Your task to perform on an android device: Search for sushi restaurants on Maps Image 0: 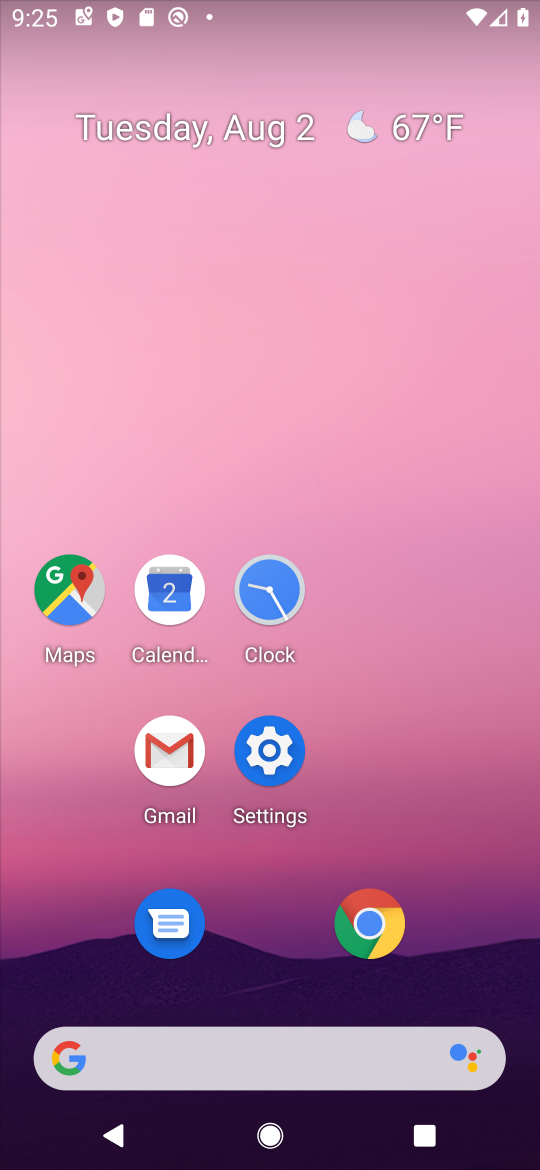
Step 0: click (78, 595)
Your task to perform on an android device: Search for sushi restaurants on Maps Image 1: 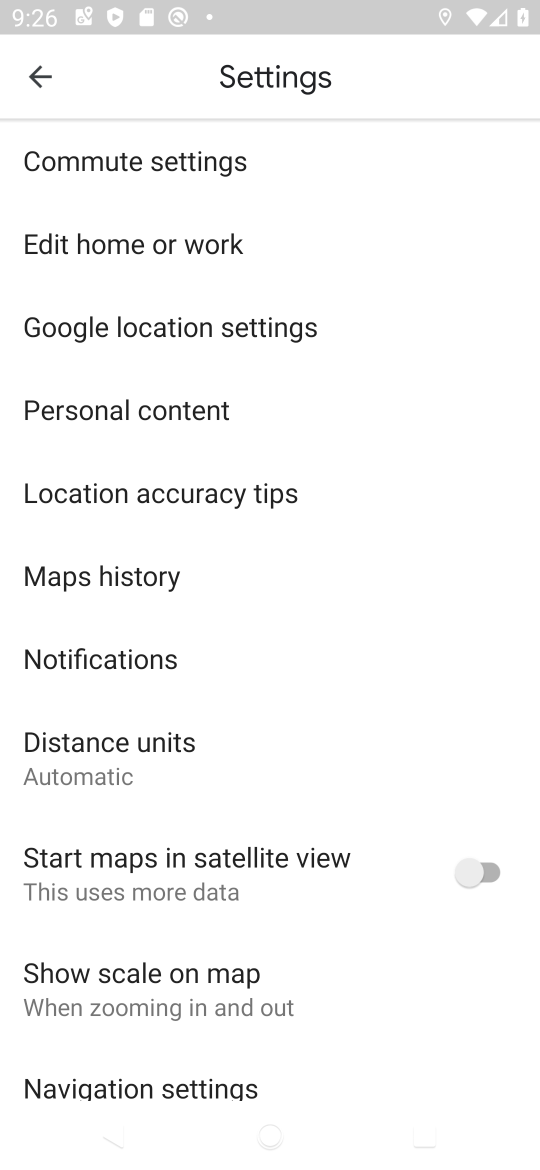
Step 1: click (44, 80)
Your task to perform on an android device: Search for sushi restaurants on Maps Image 2: 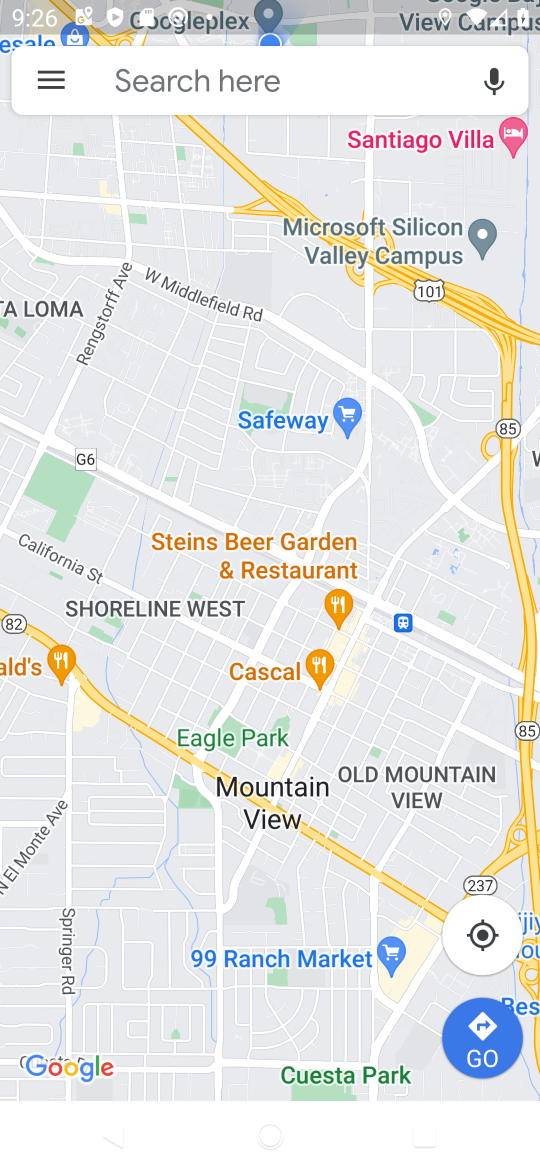
Step 2: click (224, 94)
Your task to perform on an android device: Search for sushi restaurants on Maps Image 3: 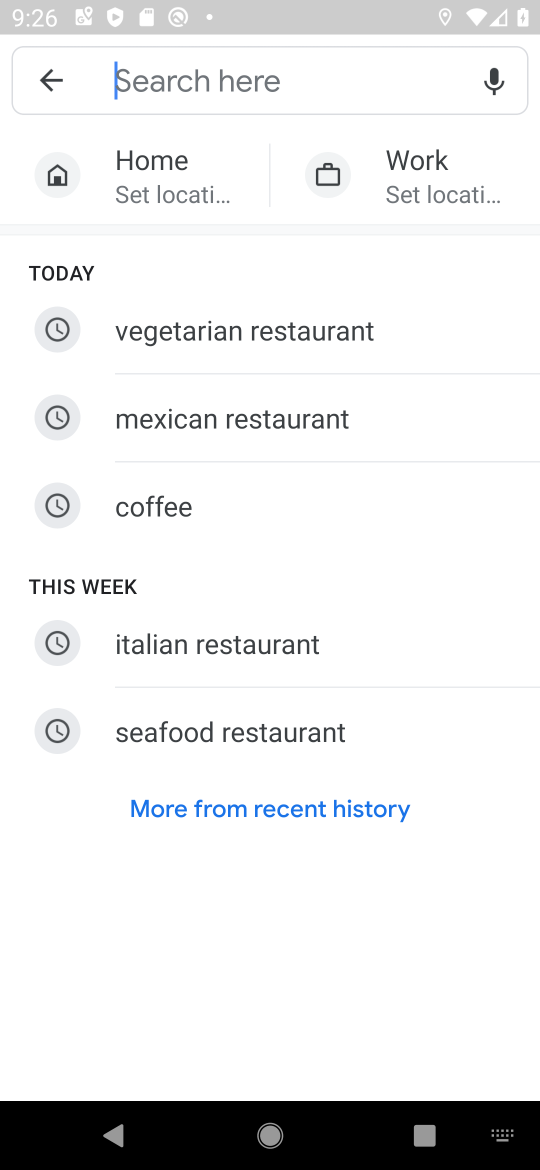
Step 3: type "sushi restaurants"
Your task to perform on an android device: Search for sushi restaurants on Maps Image 4: 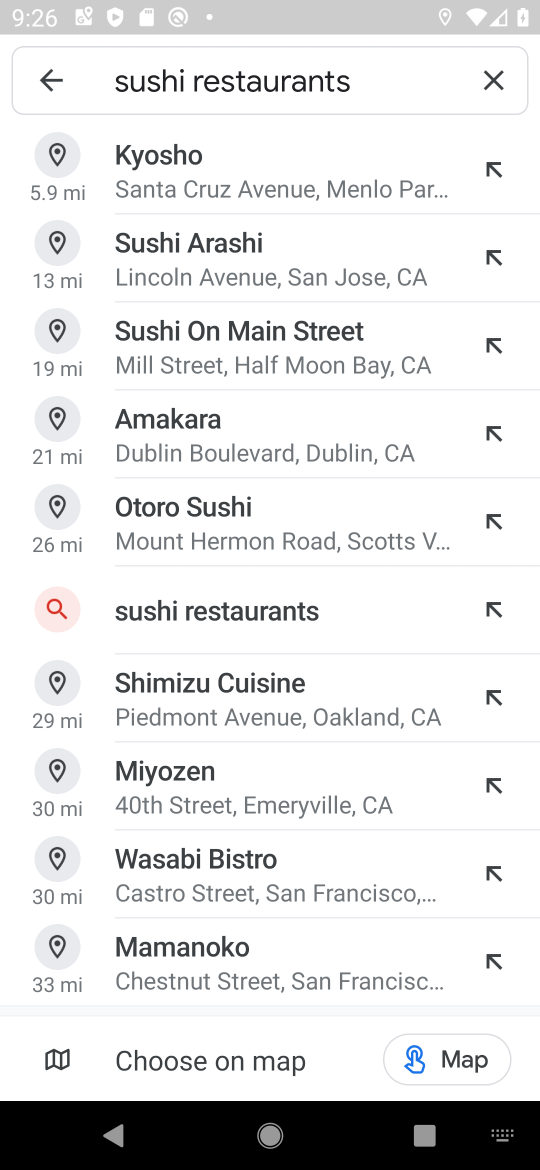
Step 4: click (162, 618)
Your task to perform on an android device: Search for sushi restaurants on Maps Image 5: 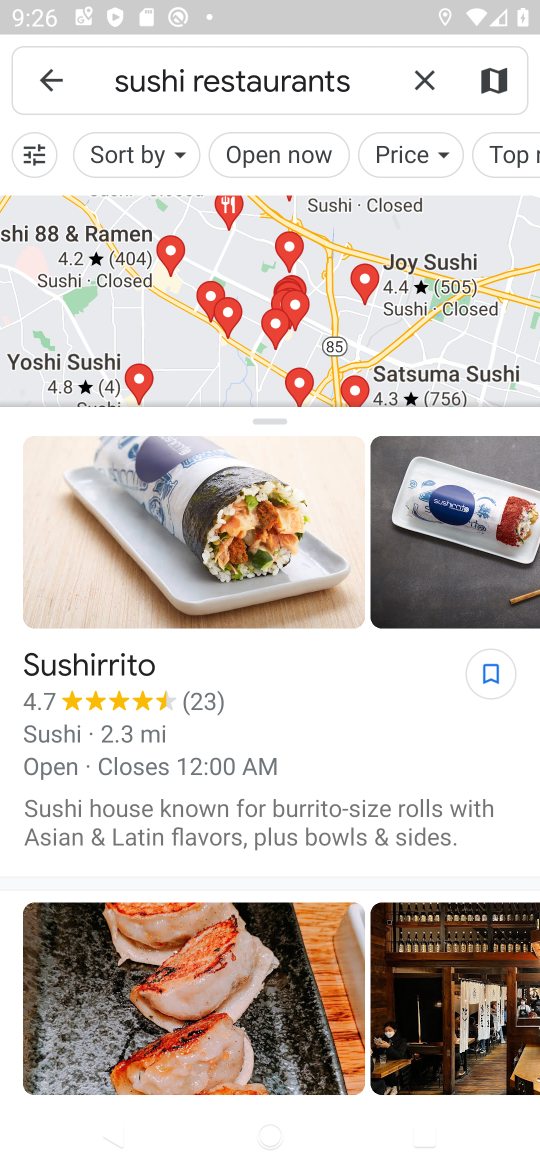
Step 5: task complete